Your task to perform on an android device: check data usage Image 0: 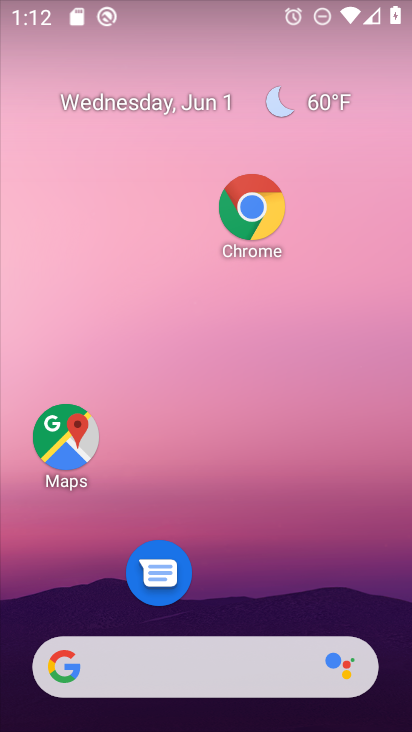
Step 0: drag from (231, 600) to (188, 169)
Your task to perform on an android device: check data usage Image 1: 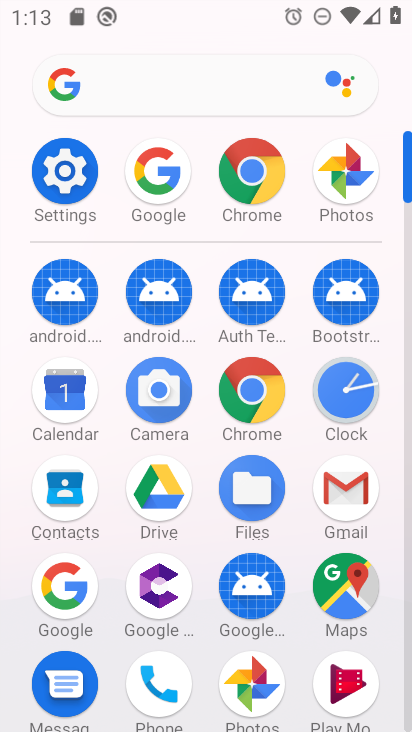
Step 1: click (75, 182)
Your task to perform on an android device: check data usage Image 2: 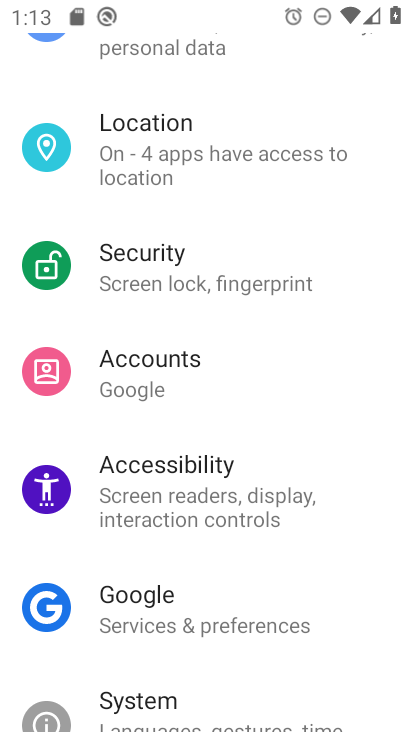
Step 2: drag from (213, 197) to (262, 613)
Your task to perform on an android device: check data usage Image 3: 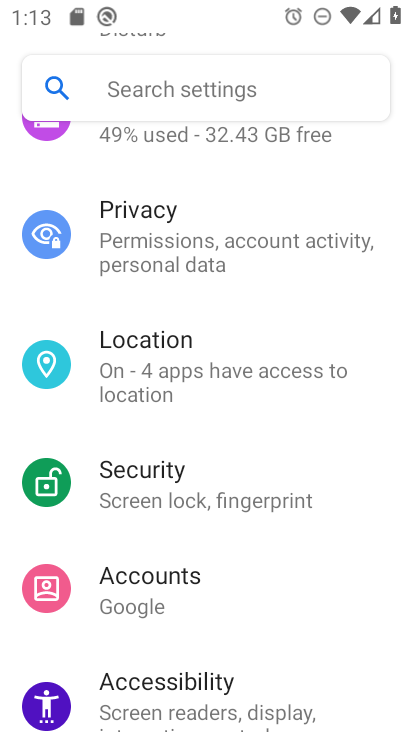
Step 3: drag from (218, 183) to (221, 567)
Your task to perform on an android device: check data usage Image 4: 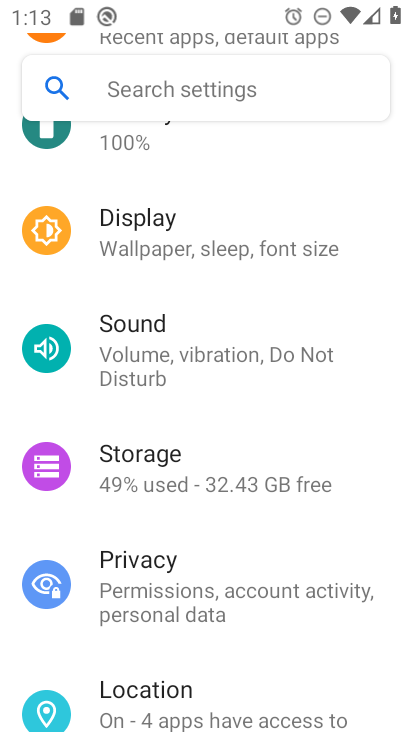
Step 4: drag from (210, 212) to (209, 569)
Your task to perform on an android device: check data usage Image 5: 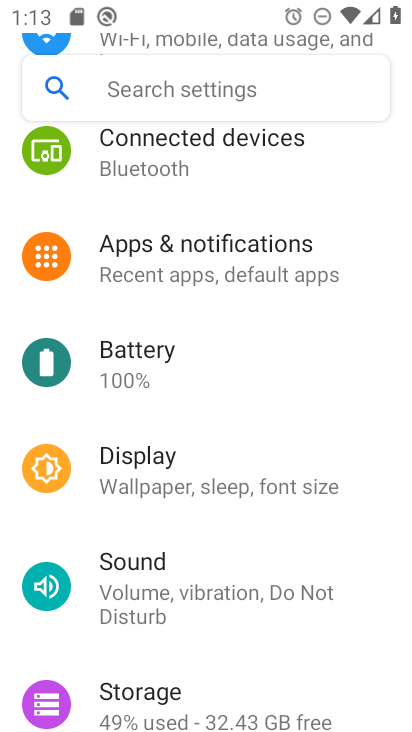
Step 5: drag from (168, 167) to (193, 541)
Your task to perform on an android device: check data usage Image 6: 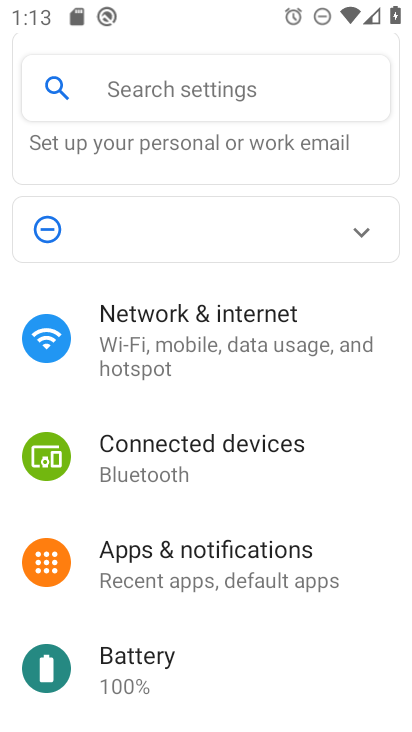
Step 6: click (197, 328)
Your task to perform on an android device: check data usage Image 7: 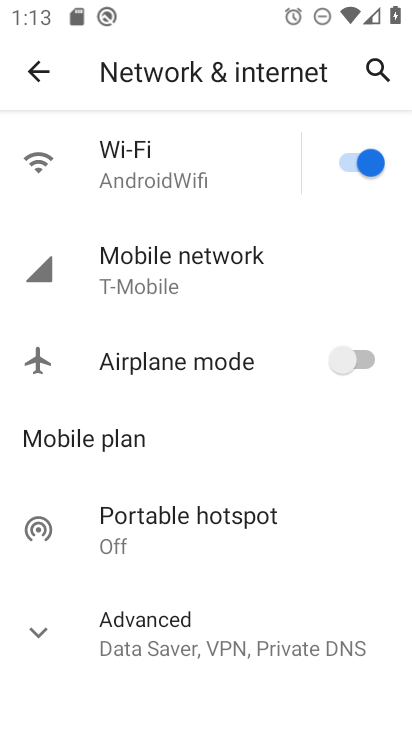
Step 7: click (205, 277)
Your task to perform on an android device: check data usage Image 8: 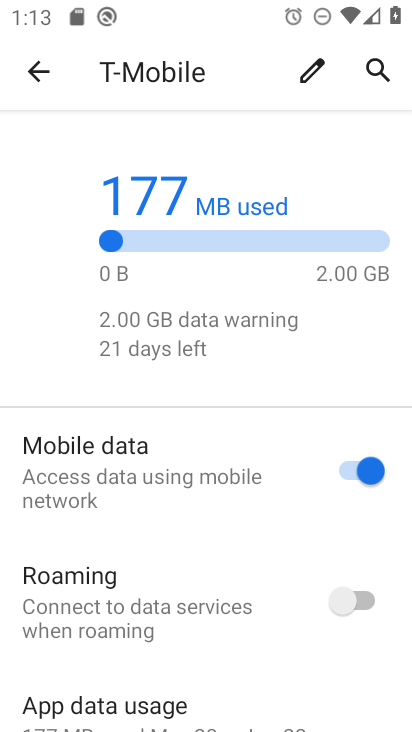
Step 8: drag from (245, 633) to (254, 317)
Your task to perform on an android device: check data usage Image 9: 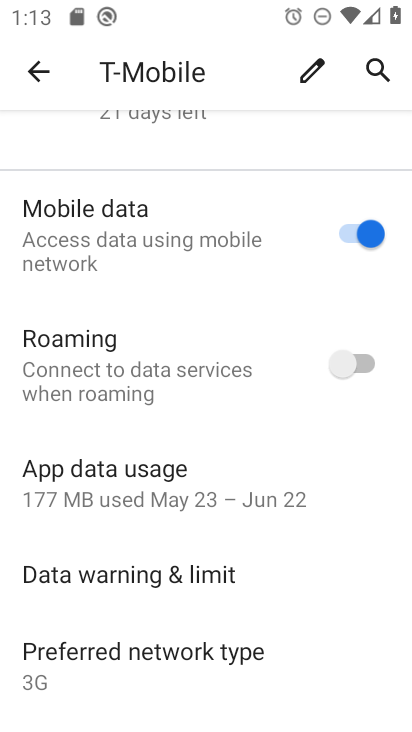
Step 9: click (234, 489)
Your task to perform on an android device: check data usage Image 10: 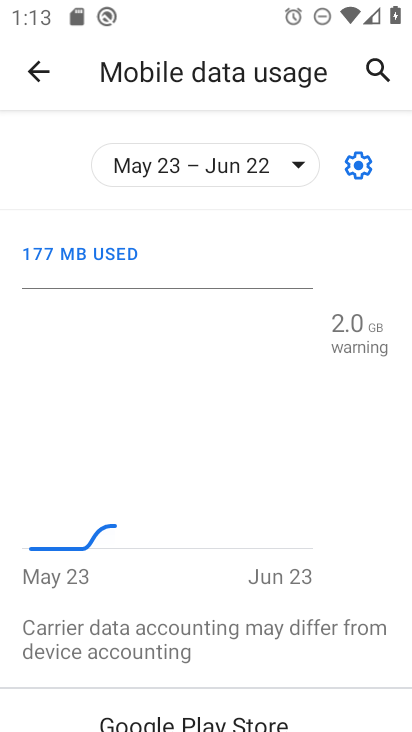
Step 10: task complete